Your task to perform on an android device: Go to privacy settings Image 0: 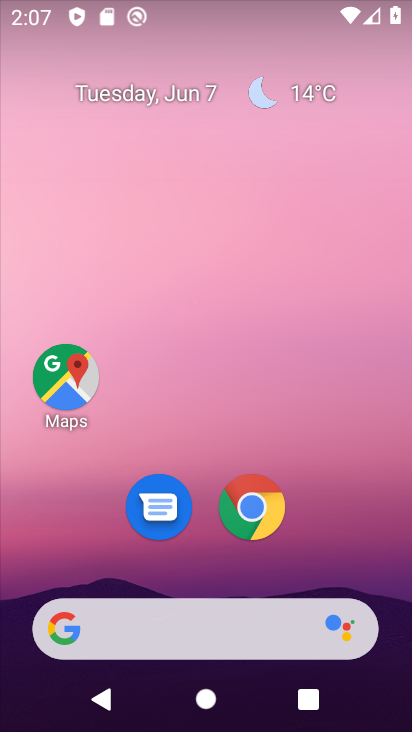
Step 0: drag from (339, 453) to (277, 11)
Your task to perform on an android device: Go to privacy settings Image 1: 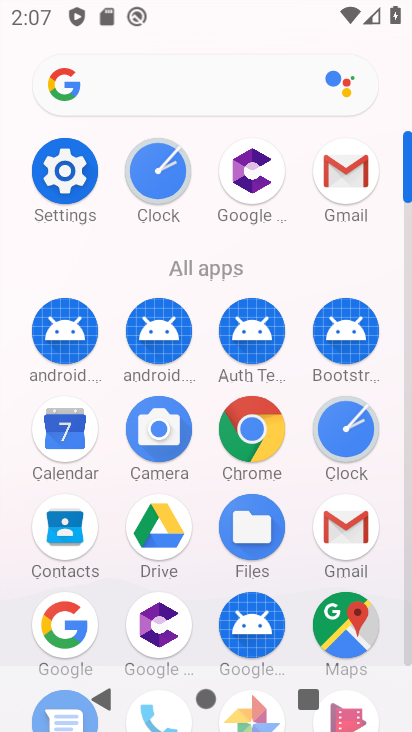
Step 1: click (59, 172)
Your task to perform on an android device: Go to privacy settings Image 2: 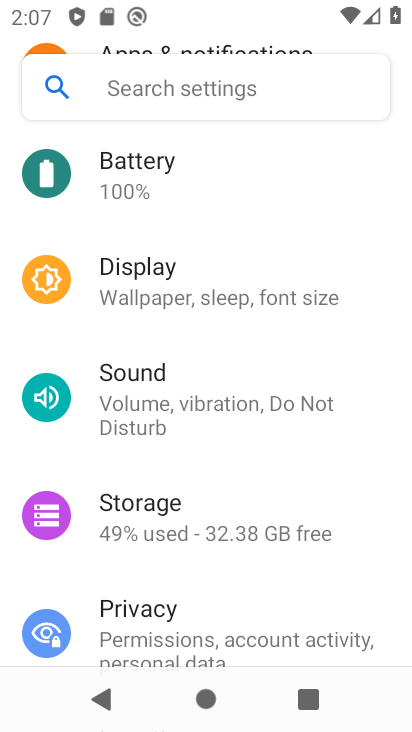
Step 2: click (163, 643)
Your task to perform on an android device: Go to privacy settings Image 3: 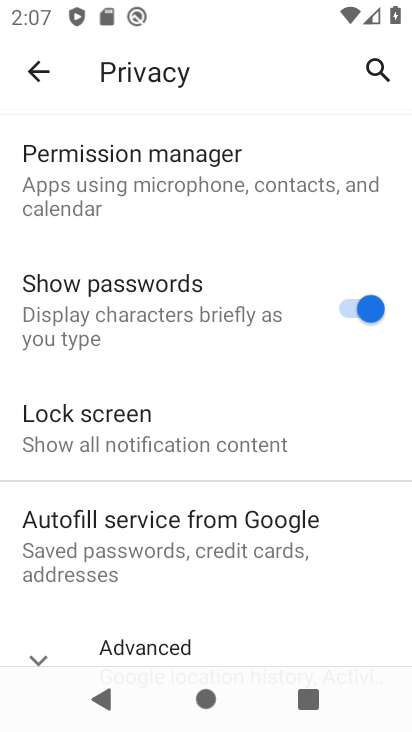
Step 3: task complete